Your task to perform on an android device: Go to CNN.com Image 0: 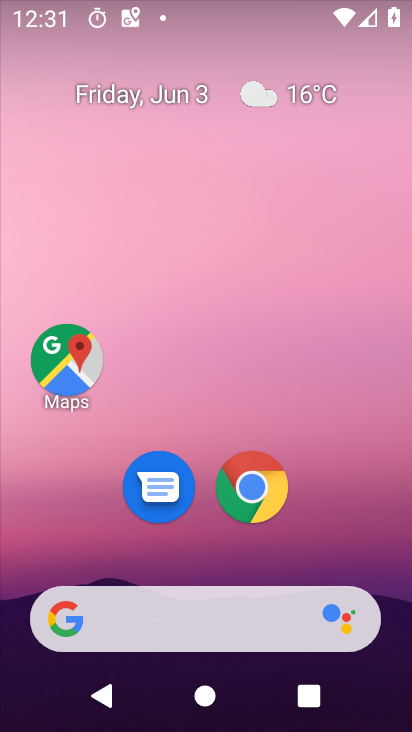
Step 0: click (269, 506)
Your task to perform on an android device: Go to CNN.com Image 1: 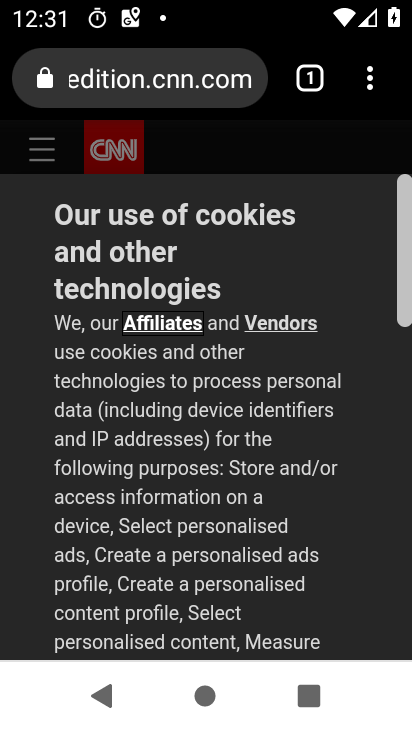
Step 1: task complete